Your task to perform on an android device: empty trash in the gmail app Image 0: 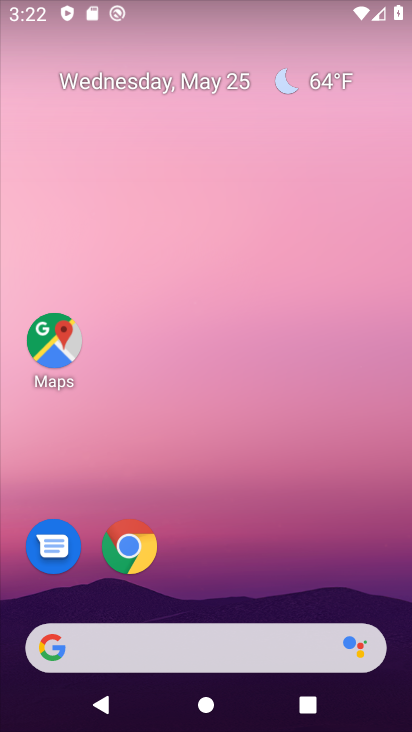
Step 0: drag from (227, 580) to (164, 152)
Your task to perform on an android device: empty trash in the gmail app Image 1: 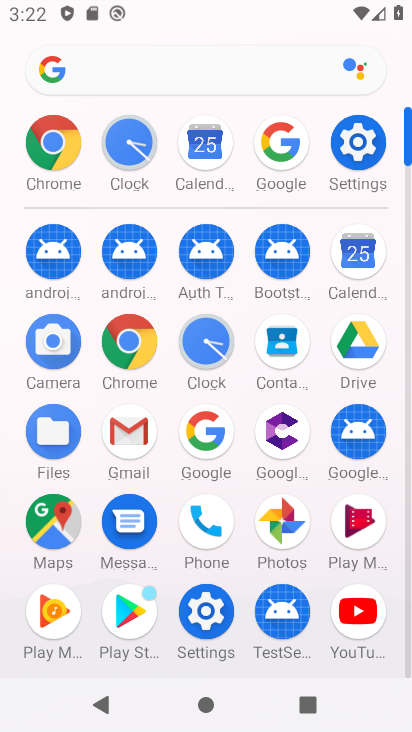
Step 1: click (143, 438)
Your task to perform on an android device: empty trash in the gmail app Image 2: 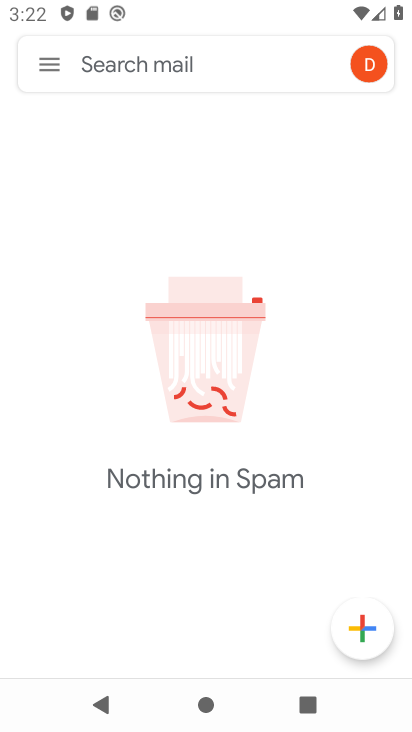
Step 2: click (55, 56)
Your task to perform on an android device: empty trash in the gmail app Image 3: 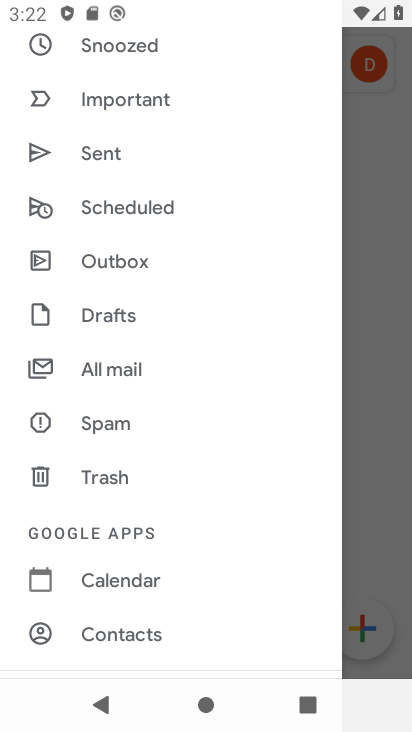
Step 3: click (94, 475)
Your task to perform on an android device: empty trash in the gmail app Image 4: 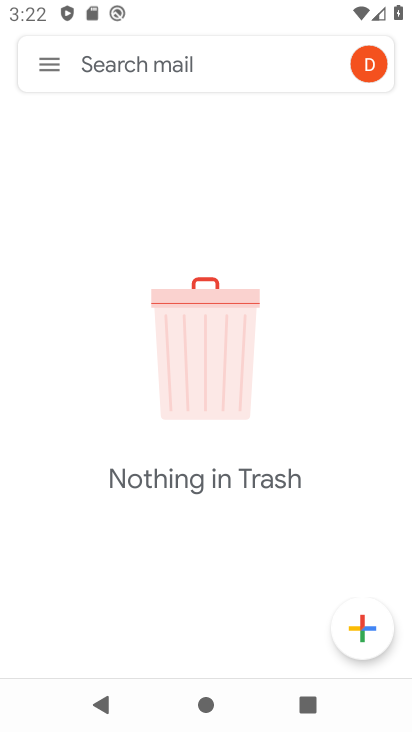
Step 4: task complete